Your task to perform on an android device: Go to Google Image 0: 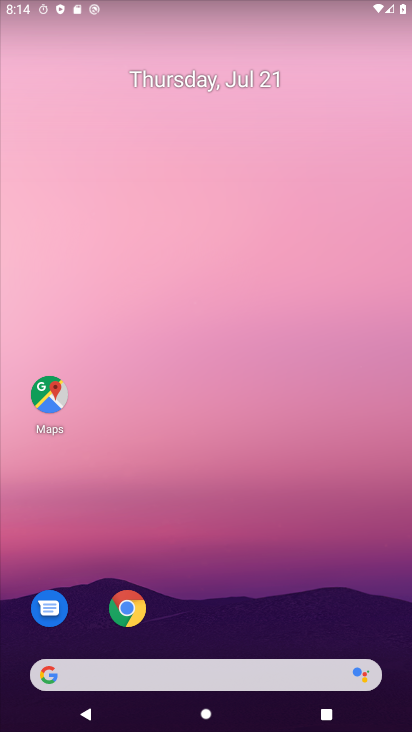
Step 0: click (129, 605)
Your task to perform on an android device: Go to Google Image 1: 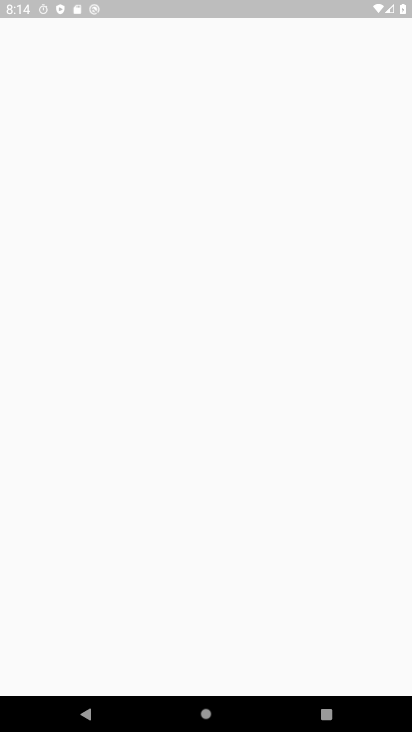
Step 1: press home button
Your task to perform on an android device: Go to Google Image 2: 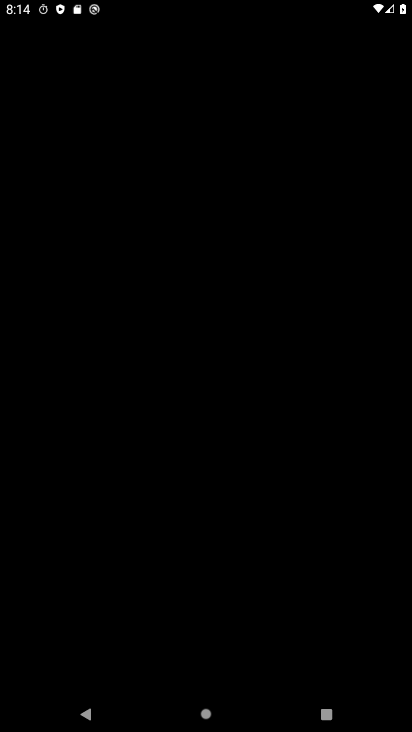
Step 2: press home button
Your task to perform on an android device: Go to Google Image 3: 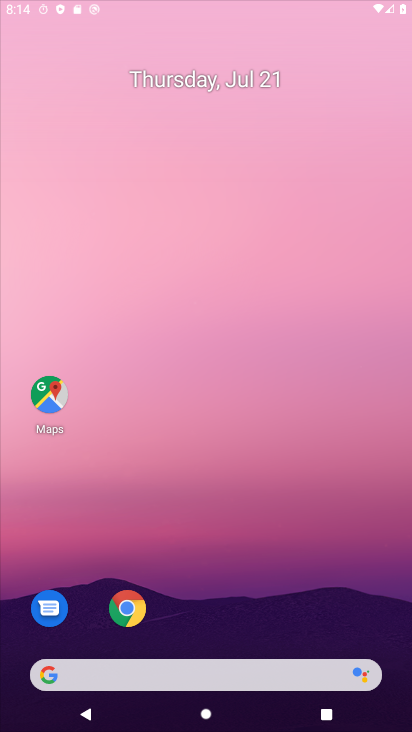
Step 3: press home button
Your task to perform on an android device: Go to Google Image 4: 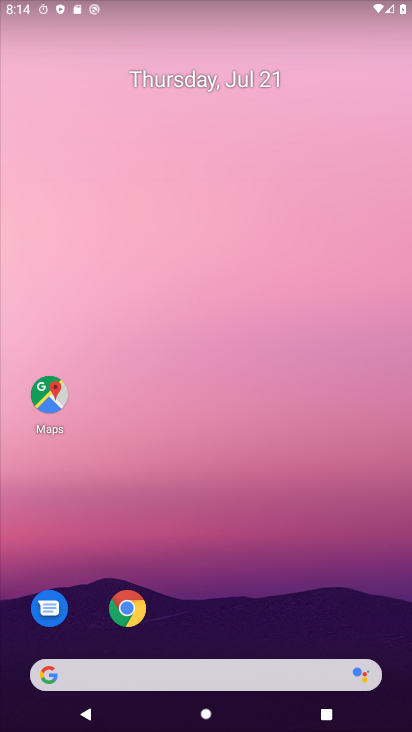
Step 4: drag from (255, 627) to (253, 91)
Your task to perform on an android device: Go to Google Image 5: 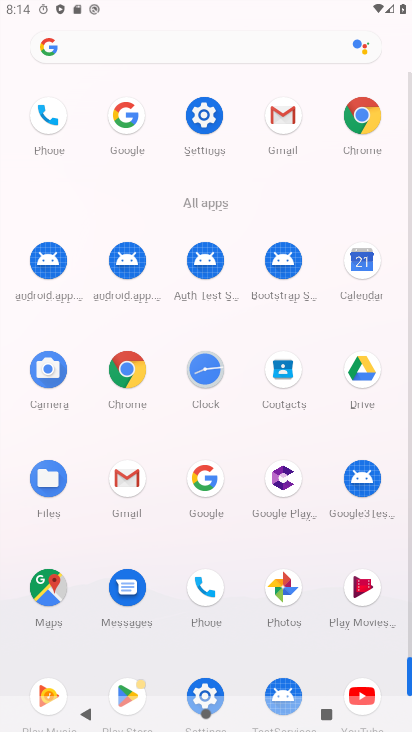
Step 5: click (203, 490)
Your task to perform on an android device: Go to Google Image 6: 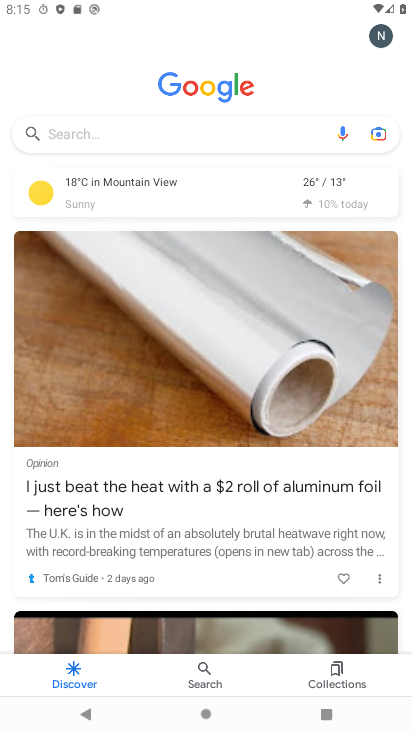
Step 6: task complete